Your task to perform on an android device: turn off wifi Image 0: 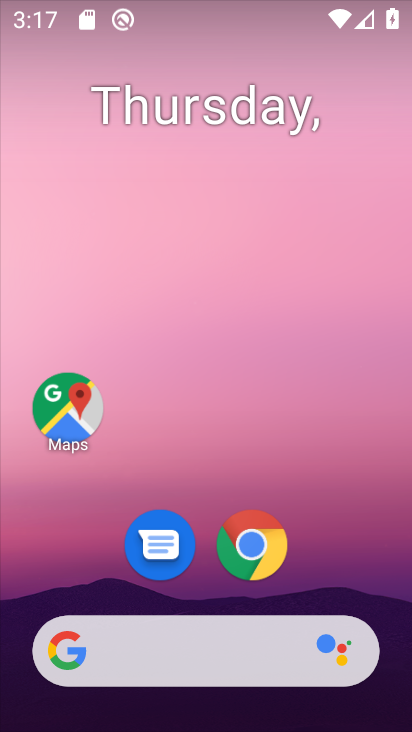
Step 0: drag from (352, 580) to (144, 8)
Your task to perform on an android device: turn off wifi Image 1: 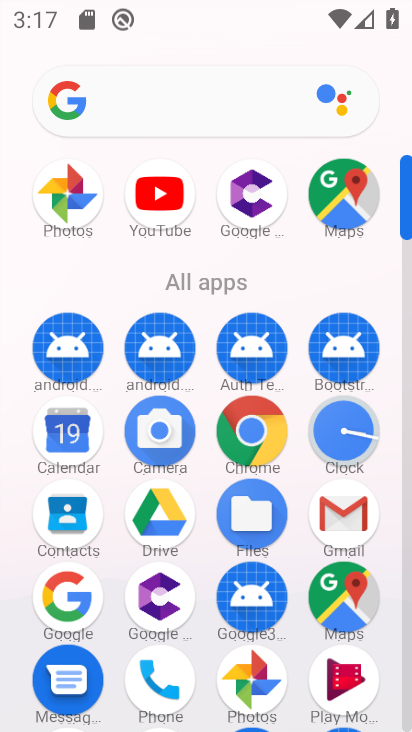
Step 1: drag from (109, 568) to (123, 340)
Your task to perform on an android device: turn off wifi Image 2: 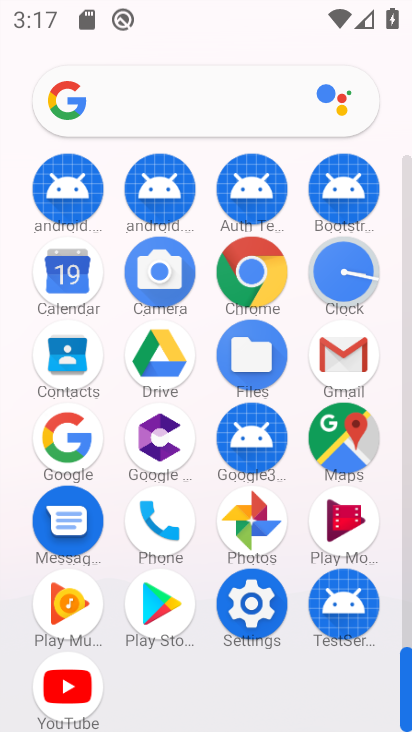
Step 2: click (252, 604)
Your task to perform on an android device: turn off wifi Image 3: 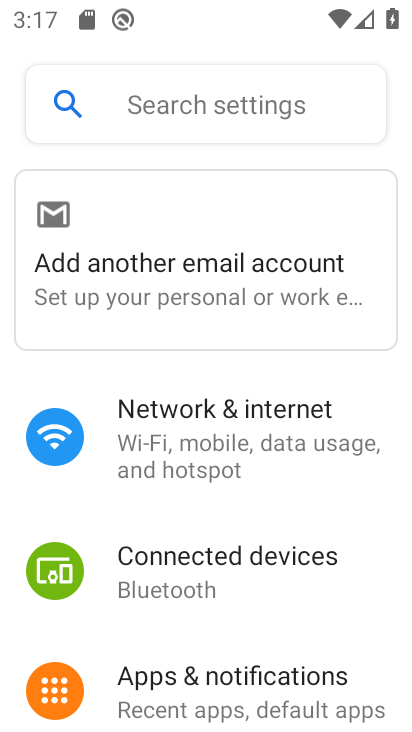
Step 3: click (230, 411)
Your task to perform on an android device: turn off wifi Image 4: 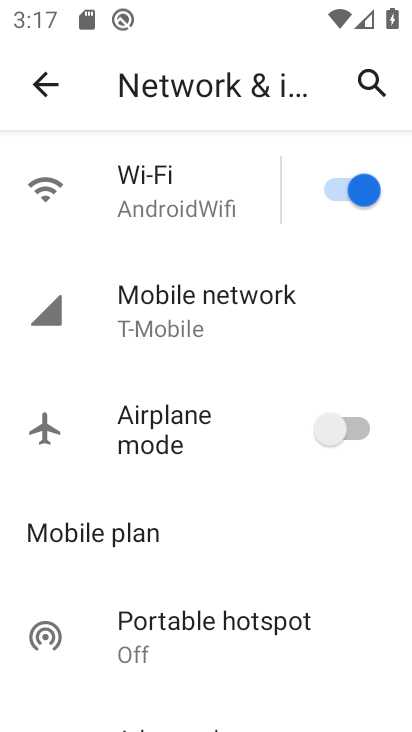
Step 4: click (364, 194)
Your task to perform on an android device: turn off wifi Image 5: 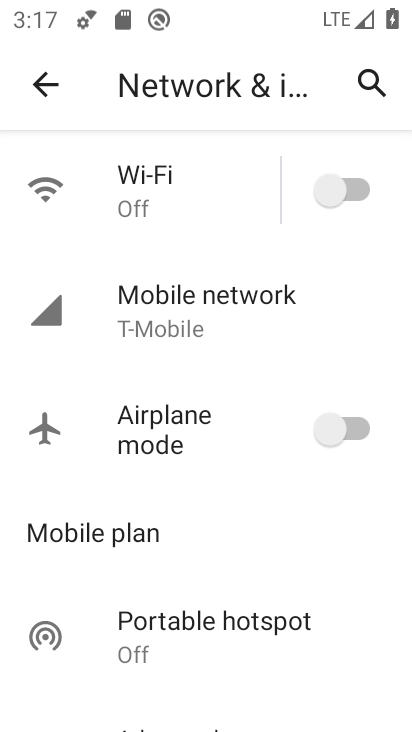
Step 5: task complete